Your task to perform on an android device: turn vacation reply on in the gmail app Image 0: 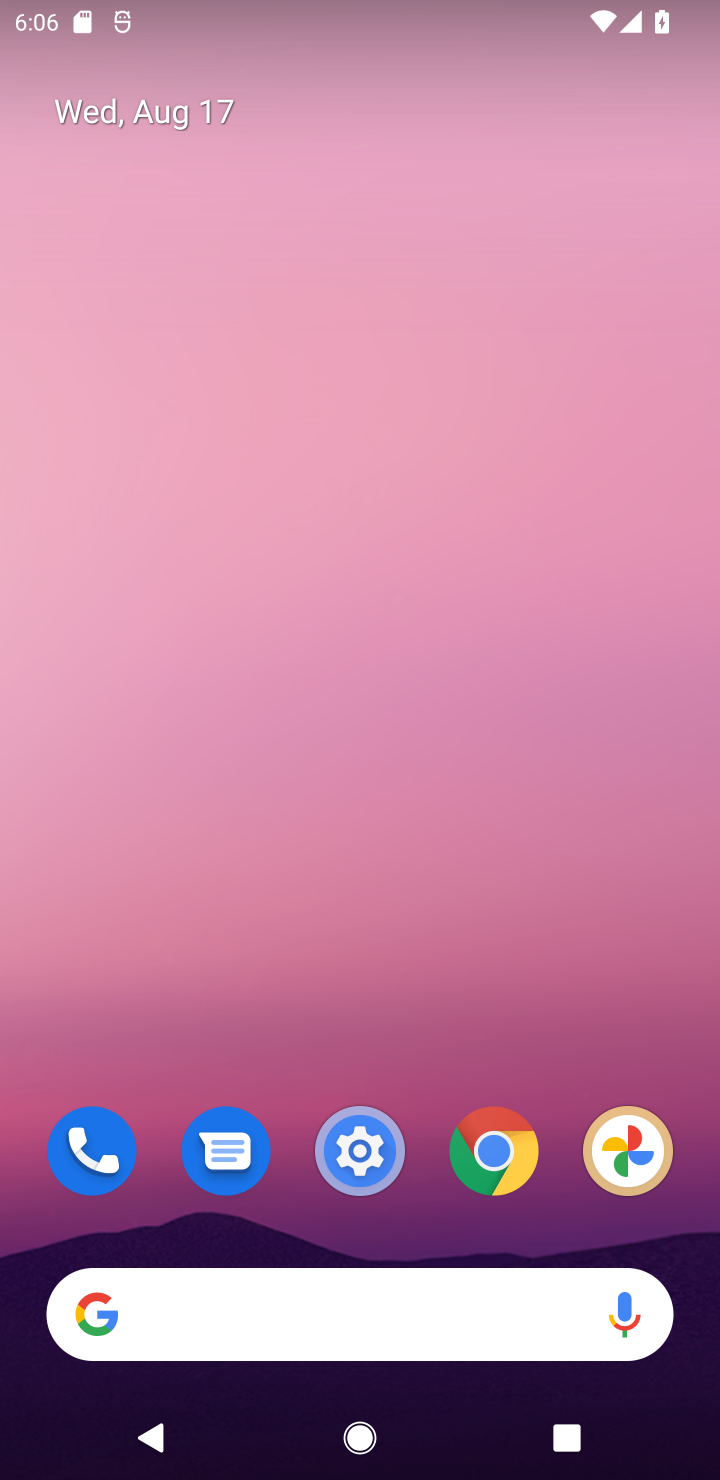
Step 0: drag from (428, 1216) to (516, 105)
Your task to perform on an android device: turn vacation reply on in the gmail app Image 1: 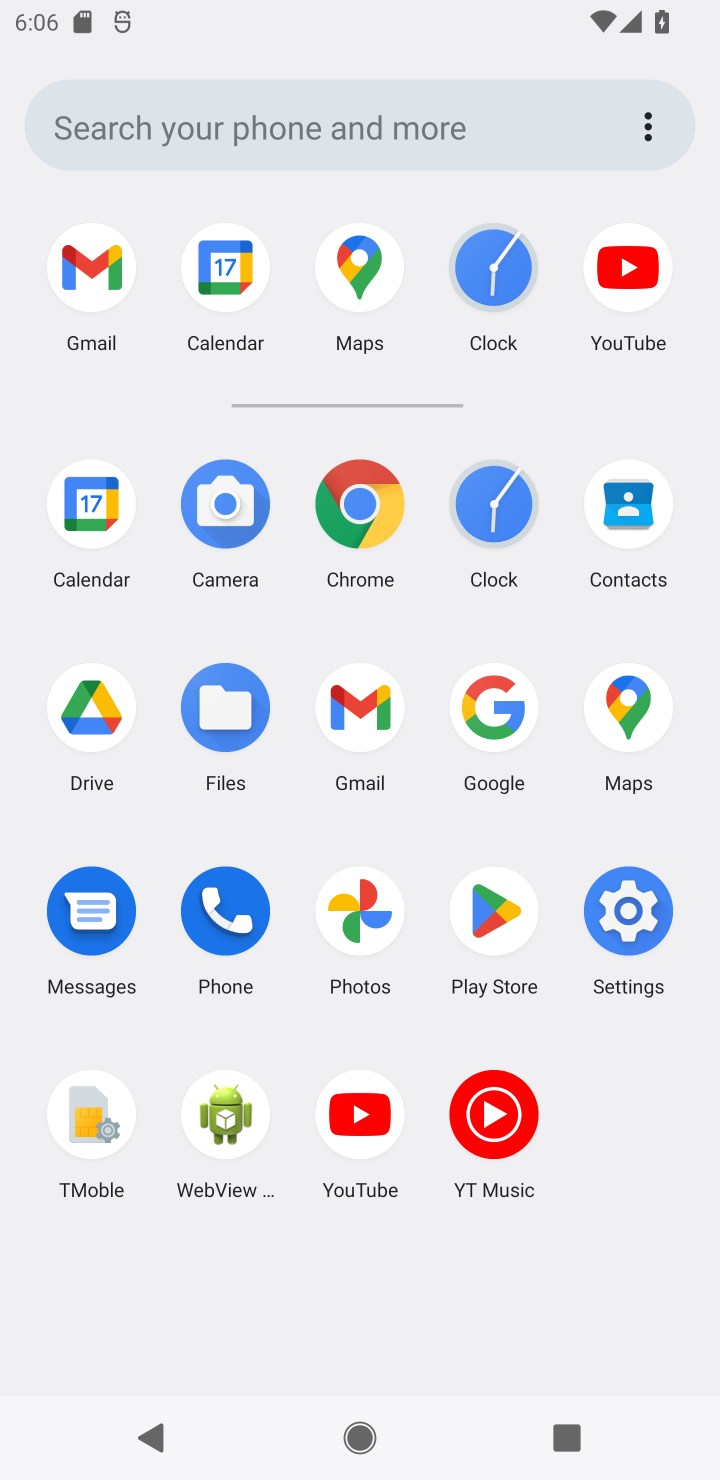
Step 1: click (53, 287)
Your task to perform on an android device: turn vacation reply on in the gmail app Image 2: 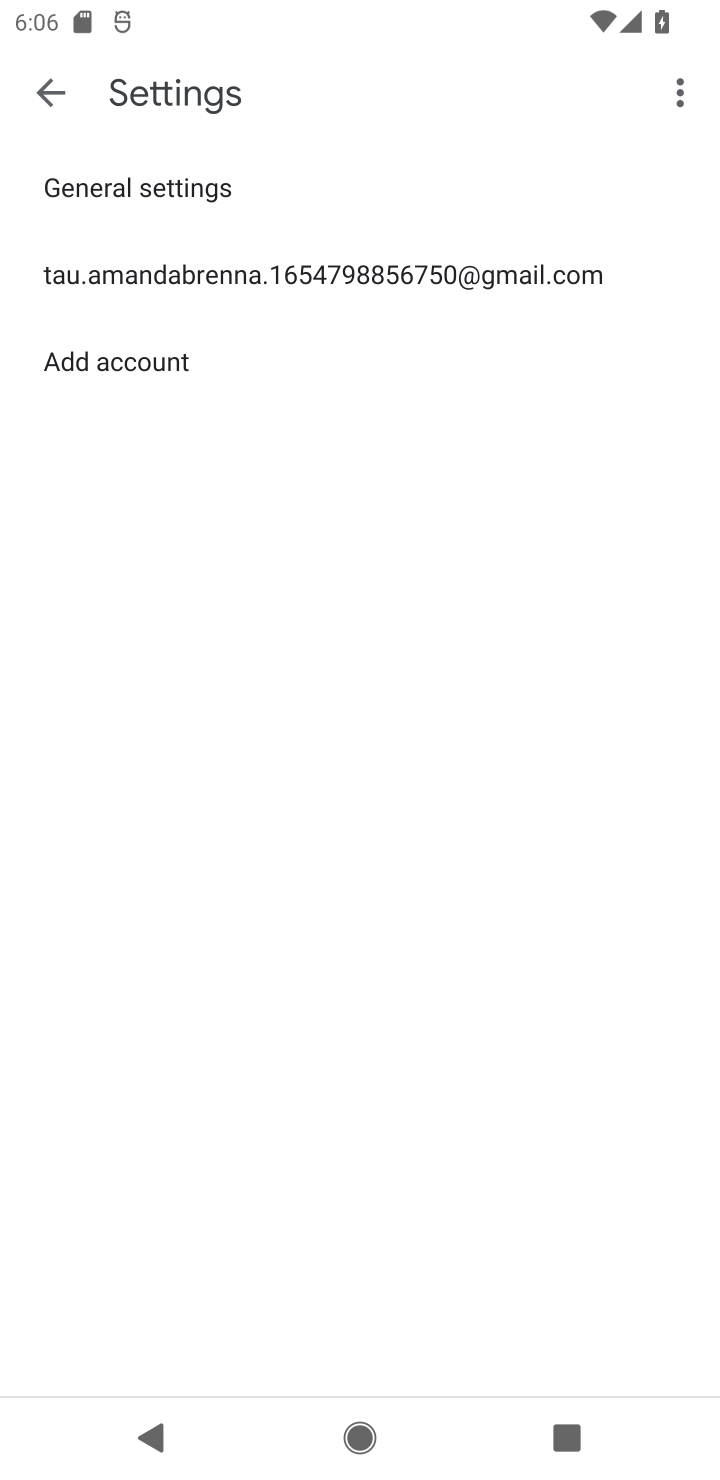
Step 2: task complete